Your task to perform on an android device: Is it going to rain tomorrow? Image 0: 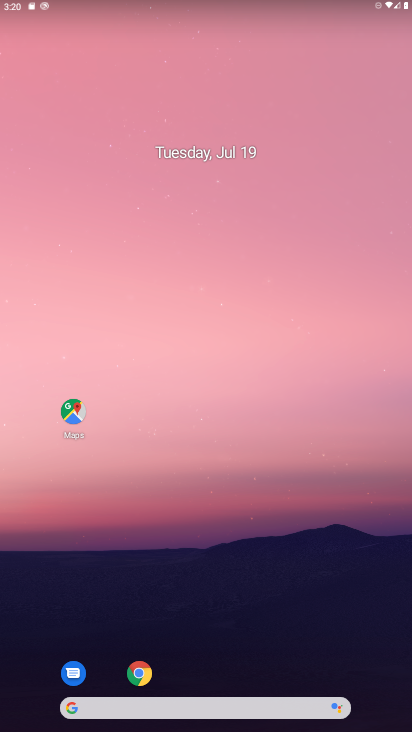
Step 0: drag from (232, 656) to (244, 251)
Your task to perform on an android device: Is it going to rain tomorrow? Image 1: 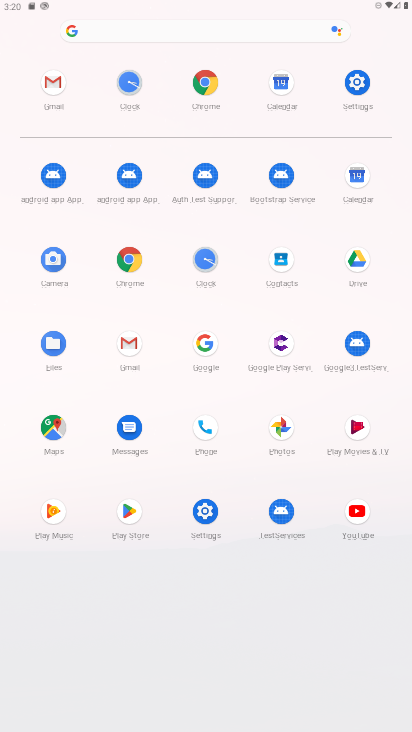
Step 1: click (206, 20)
Your task to perform on an android device: Is it going to rain tomorrow? Image 2: 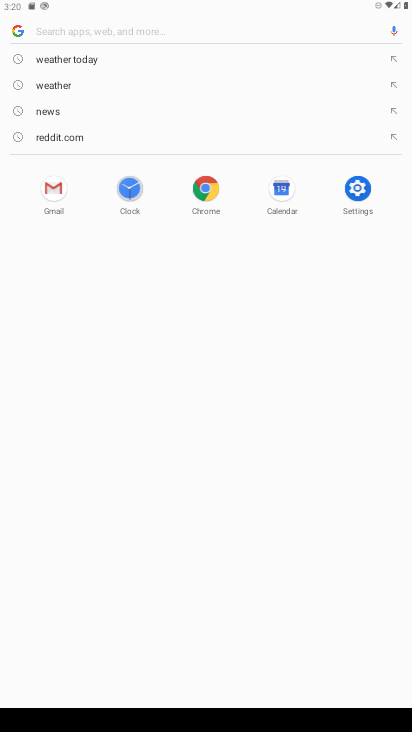
Step 2: click (64, 86)
Your task to perform on an android device: Is it going to rain tomorrow? Image 3: 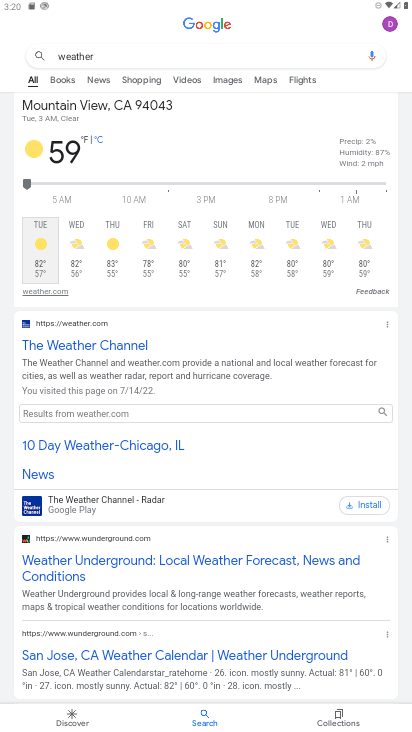
Step 3: click (82, 242)
Your task to perform on an android device: Is it going to rain tomorrow? Image 4: 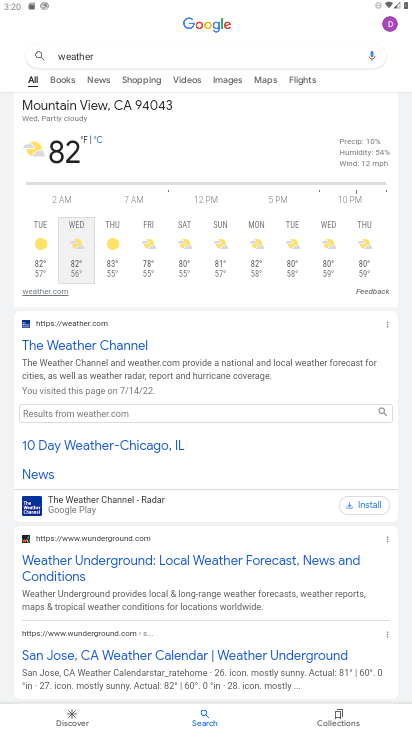
Step 4: task complete